Your task to perform on an android device: Empty the shopping cart on ebay.com. Search for logitech g pro on ebay.com, select the first entry, and add it to the cart. Image 0: 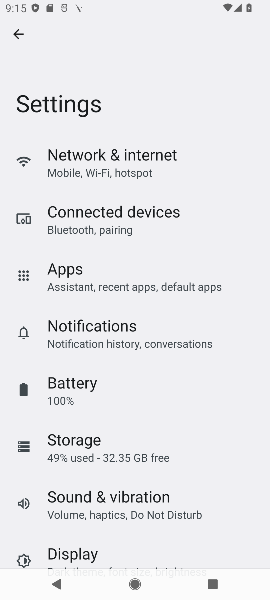
Step 0: press home button
Your task to perform on an android device: Empty the shopping cart on ebay.com. Search for logitech g pro on ebay.com, select the first entry, and add it to the cart. Image 1: 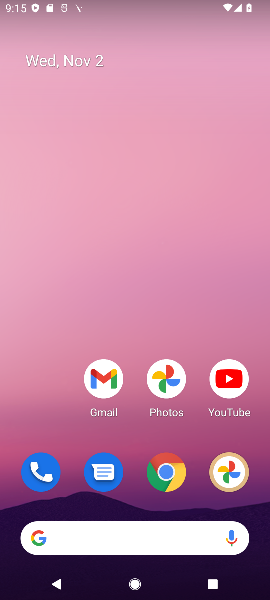
Step 1: click (168, 469)
Your task to perform on an android device: Empty the shopping cart on ebay.com. Search for logitech g pro on ebay.com, select the first entry, and add it to the cart. Image 2: 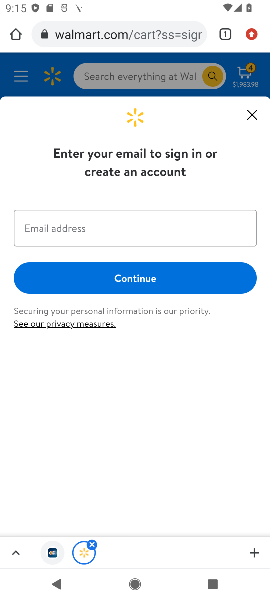
Step 2: click (147, 49)
Your task to perform on an android device: Empty the shopping cart on ebay.com. Search for logitech g pro on ebay.com, select the first entry, and add it to the cart. Image 3: 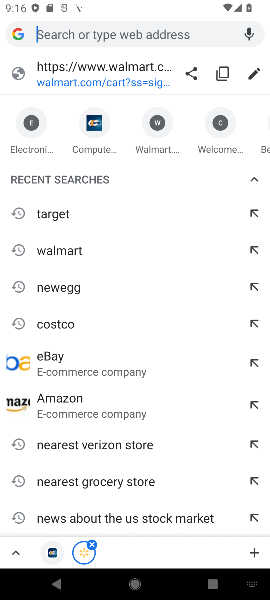
Step 3: type "ebay.com"
Your task to perform on an android device: Empty the shopping cart on ebay.com. Search for logitech g pro on ebay.com, select the first entry, and add it to the cart. Image 4: 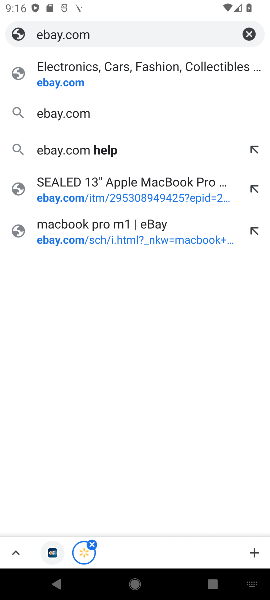
Step 4: click (104, 67)
Your task to perform on an android device: Empty the shopping cart on ebay.com. Search for logitech g pro on ebay.com, select the first entry, and add it to the cart. Image 5: 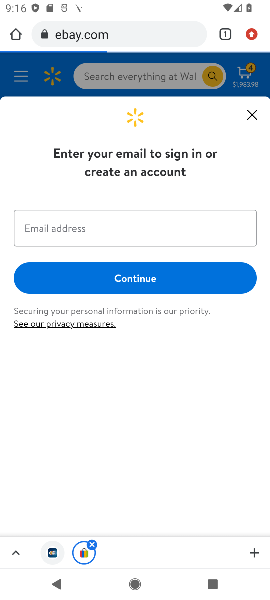
Step 5: task complete